Your task to perform on an android device: Open settings Image 0: 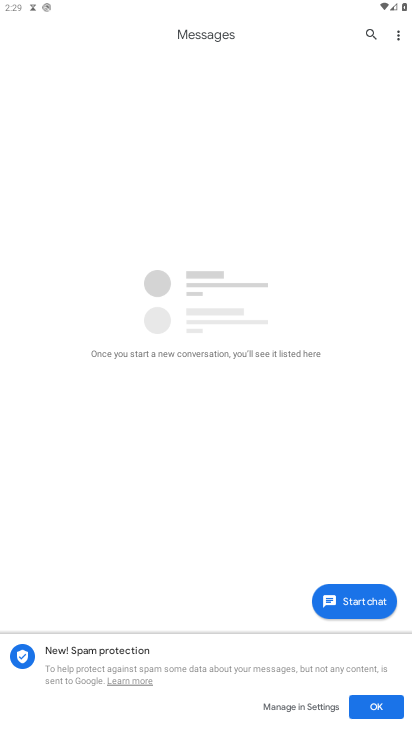
Step 0: press home button
Your task to perform on an android device: Open settings Image 1: 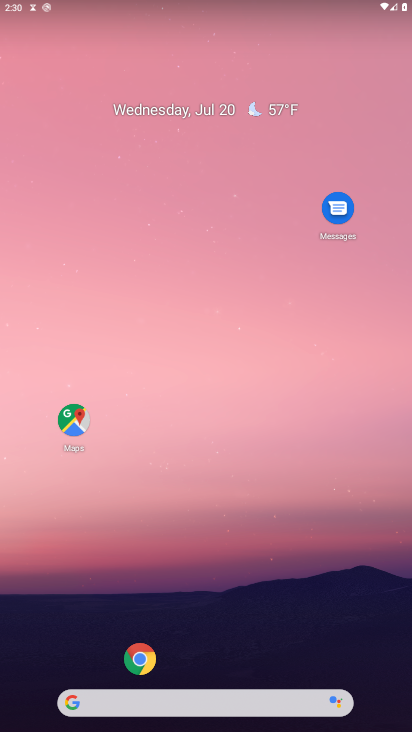
Step 1: drag from (28, 681) to (274, 110)
Your task to perform on an android device: Open settings Image 2: 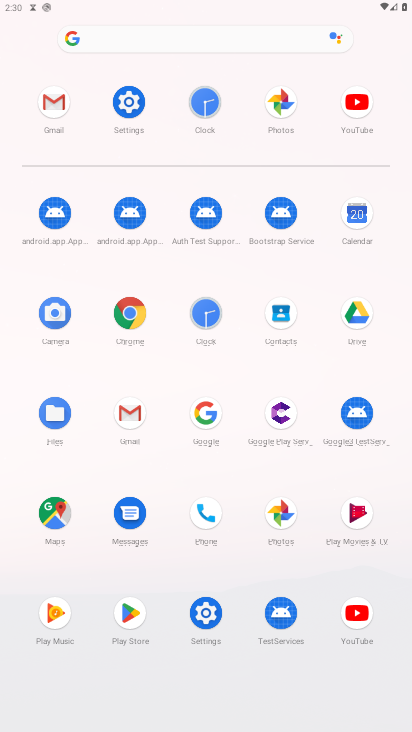
Step 2: click (219, 611)
Your task to perform on an android device: Open settings Image 3: 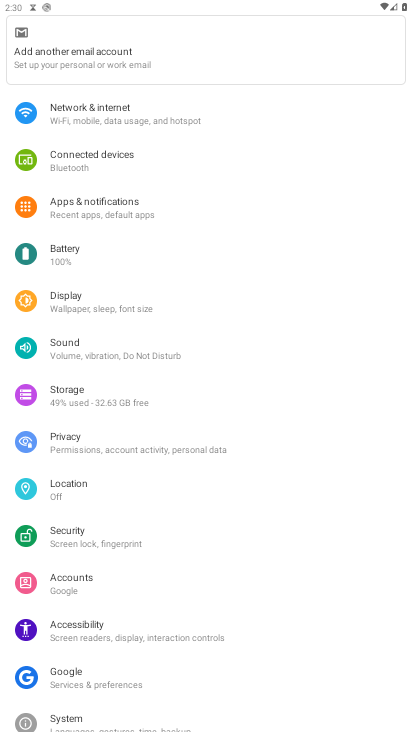
Step 3: task complete